Your task to perform on an android device: read, delete, or share a saved page in the chrome app Image 0: 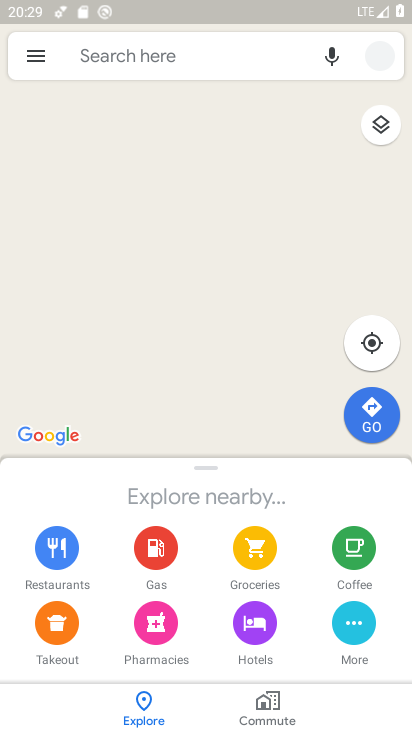
Step 0: click (228, 106)
Your task to perform on an android device: read, delete, or share a saved page in the chrome app Image 1: 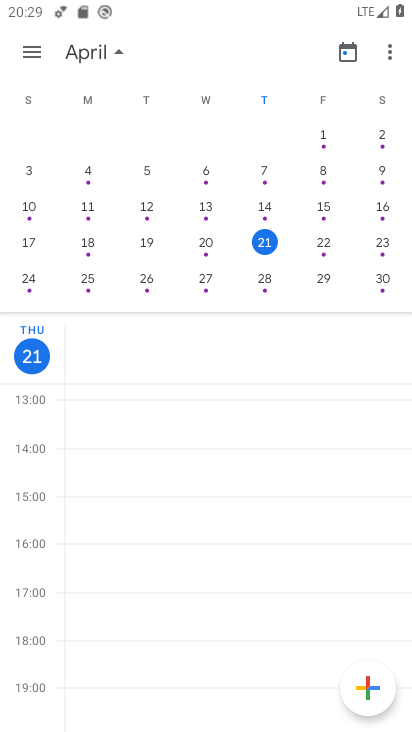
Step 1: drag from (211, 622) to (213, 155)
Your task to perform on an android device: read, delete, or share a saved page in the chrome app Image 2: 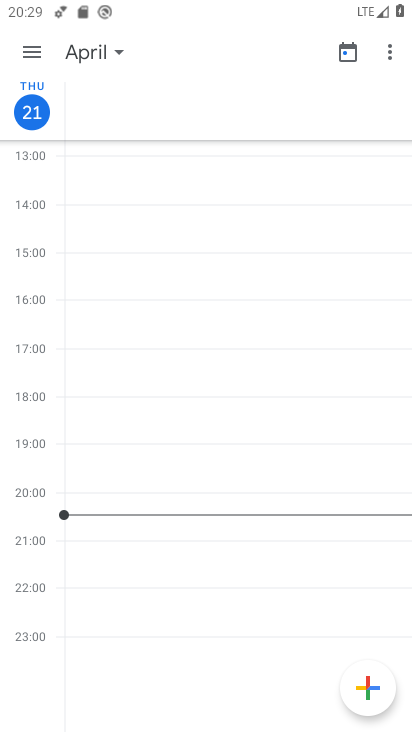
Step 2: press home button
Your task to perform on an android device: read, delete, or share a saved page in the chrome app Image 3: 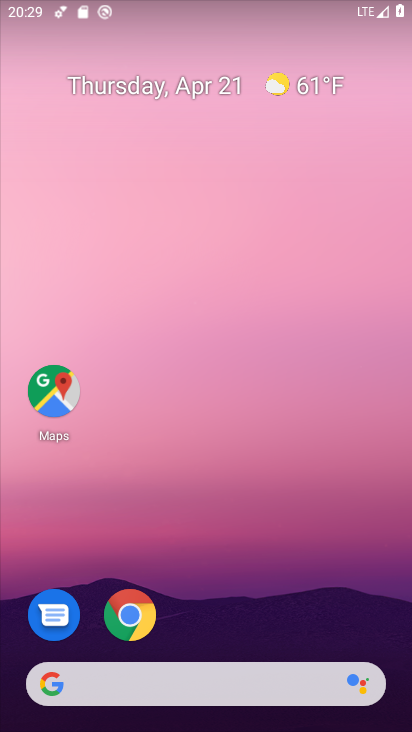
Step 3: drag from (223, 638) to (279, 107)
Your task to perform on an android device: read, delete, or share a saved page in the chrome app Image 4: 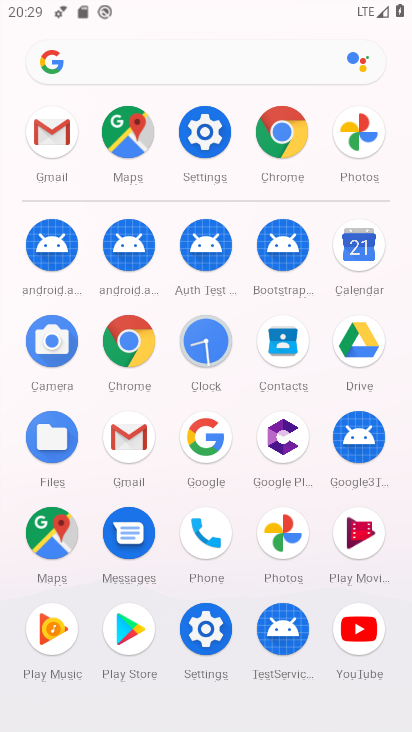
Step 4: click (124, 334)
Your task to perform on an android device: read, delete, or share a saved page in the chrome app Image 5: 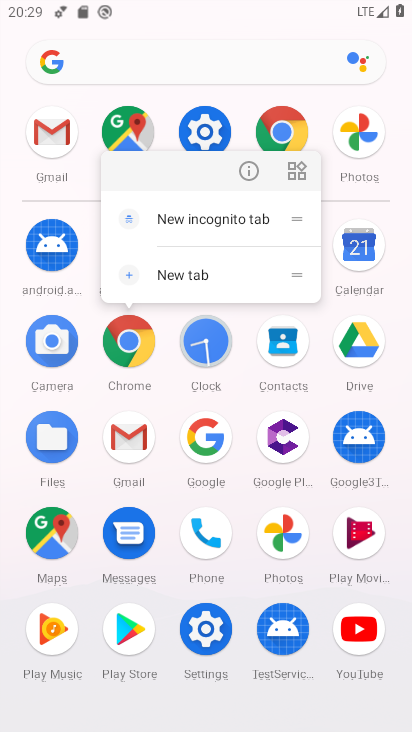
Step 5: click (249, 161)
Your task to perform on an android device: read, delete, or share a saved page in the chrome app Image 6: 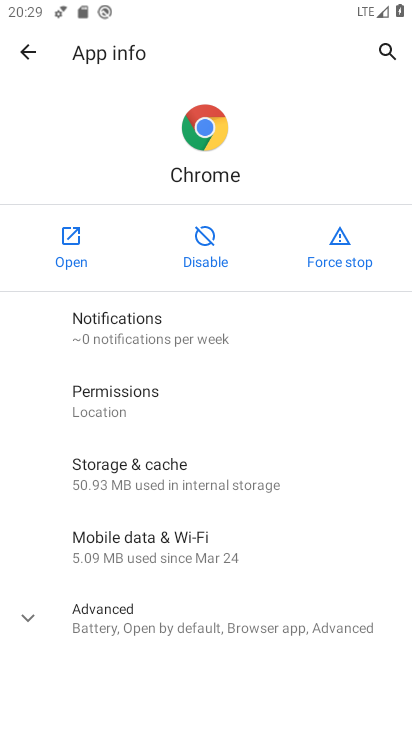
Step 6: click (68, 234)
Your task to perform on an android device: read, delete, or share a saved page in the chrome app Image 7: 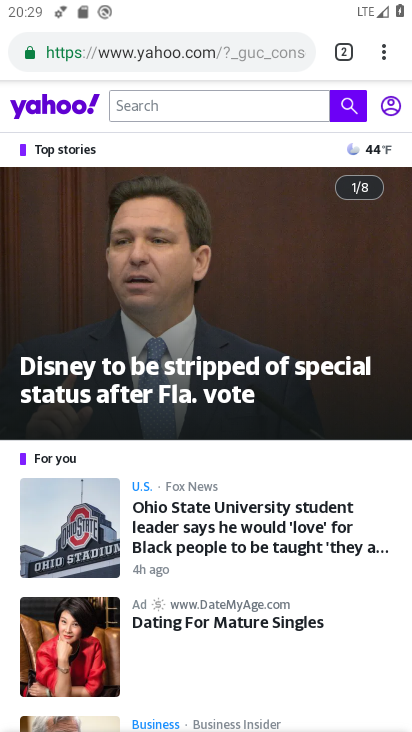
Step 7: click (209, 47)
Your task to perform on an android device: read, delete, or share a saved page in the chrome app Image 8: 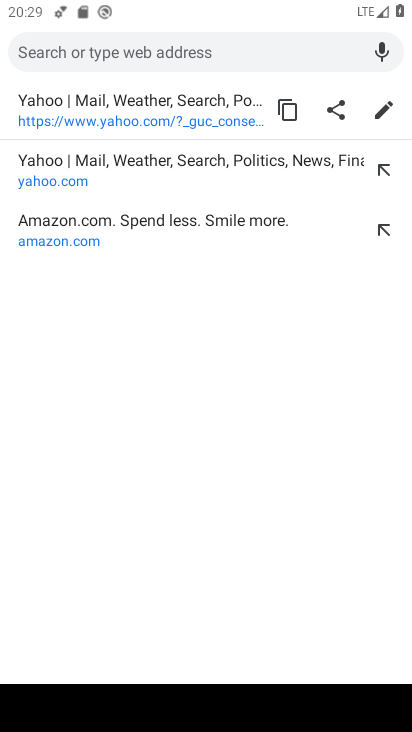
Step 8: task complete